Your task to perform on an android device: Go to Wikipedia Image 0: 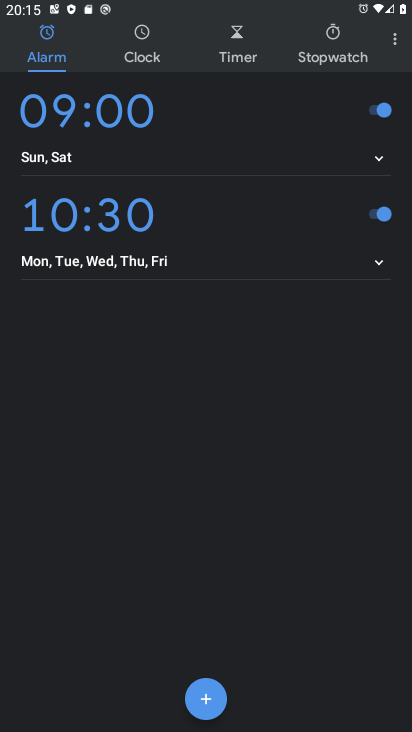
Step 0: press home button
Your task to perform on an android device: Go to Wikipedia Image 1: 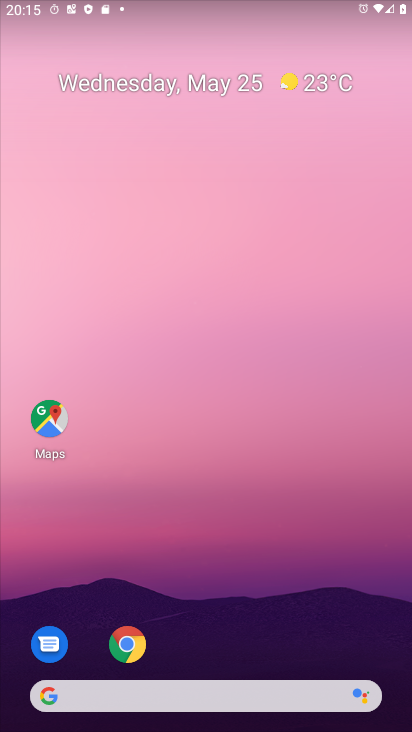
Step 1: drag from (276, 721) to (268, 94)
Your task to perform on an android device: Go to Wikipedia Image 2: 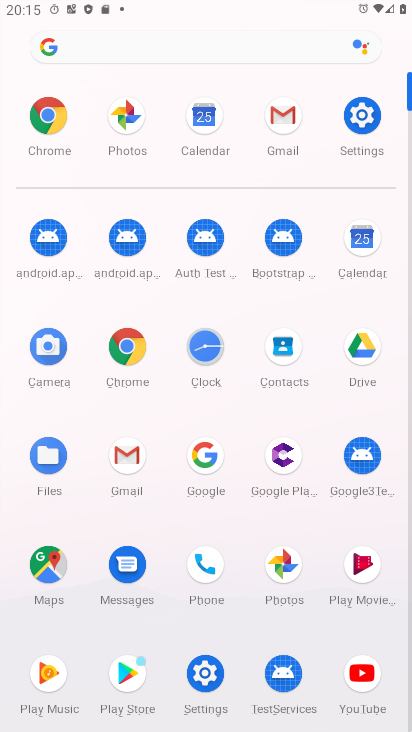
Step 2: click (68, 129)
Your task to perform on an android device: Go to Wikipedia Image 3: 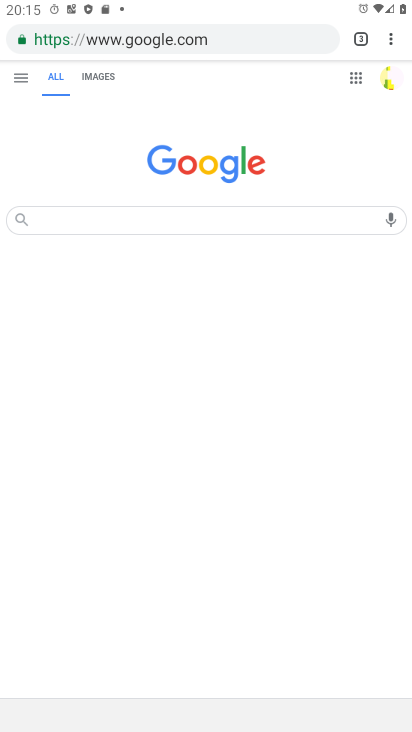
Step 3: click (223, 49)
Your task to perform on an android device: Go to Wikipedia Image 4: 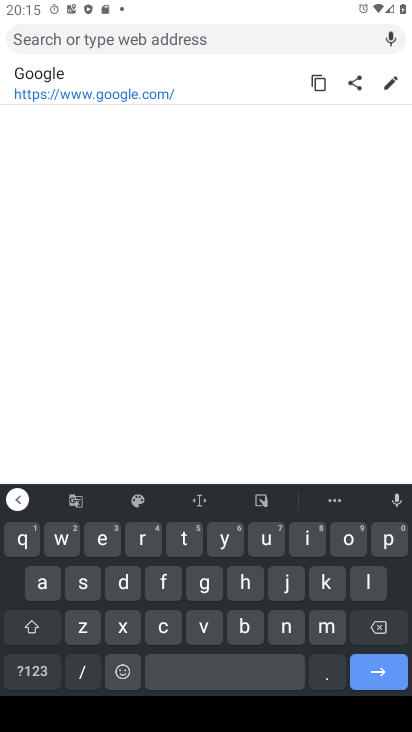
Step 4: click (62, 549)
Your task to perform on an android device: Go to Wikipedia Image 5: 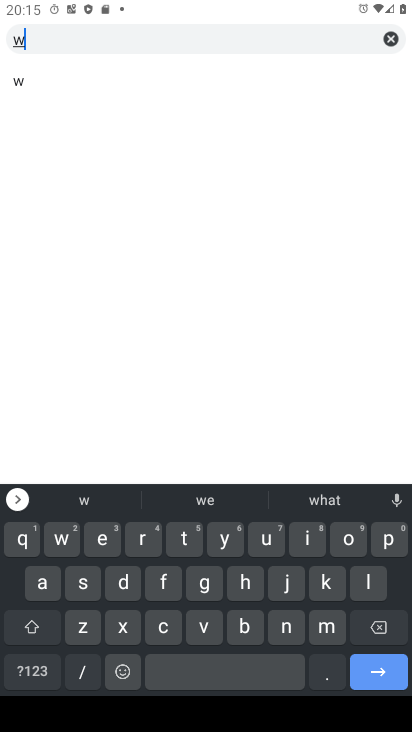
Step 5: click (310, 546)
Your task to perform on an android device: Go to Wikipedia Image 6: 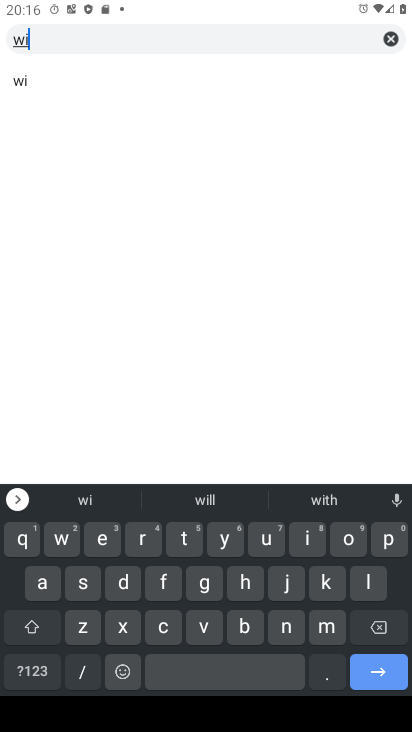
Step 6: click (334, 583)
Your task to perform on an android device: Go to Wikipedia Image 7: 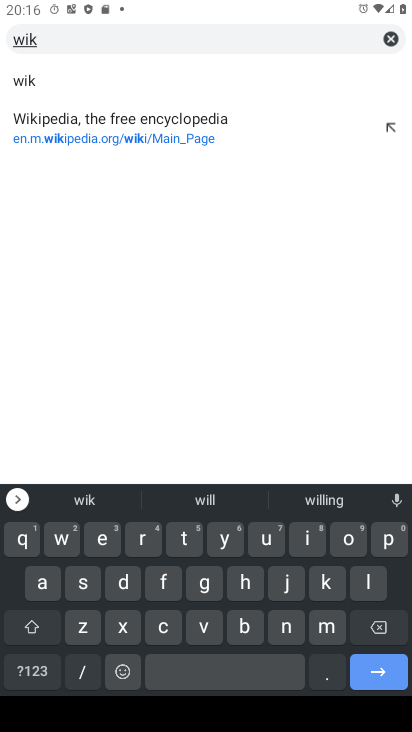
Step 7: click (83, 138)
Your task to perform on an android device: Go to Wikipedia Image 8: 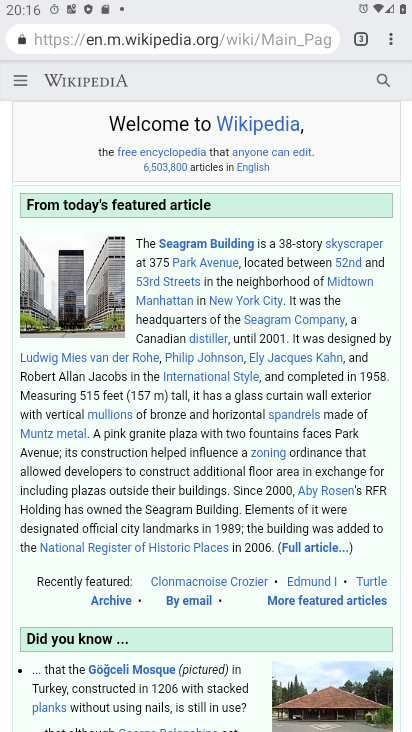
Step 8: task complete